Your task to perform on an android device: Open eBay Image 0: 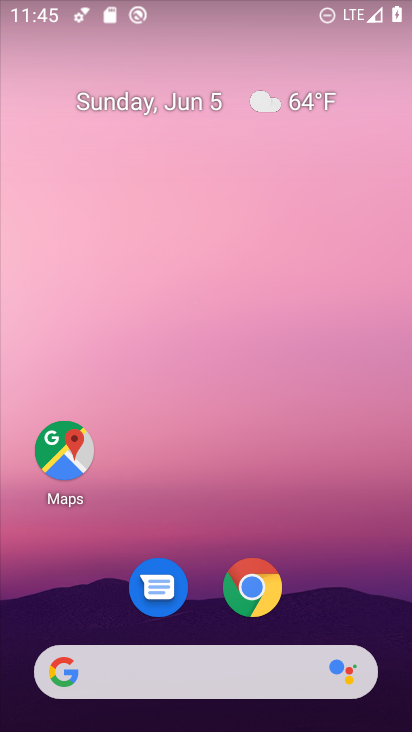
Step 0: click (251, 592)
Your task to perform on an android device: Open eBay Image 1: 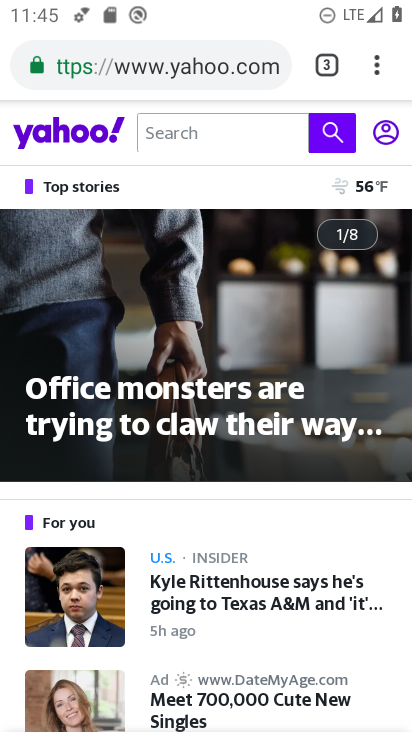
Step 1: click (333, 59)
Your task to perform on an android device: Open eBay Image 2: 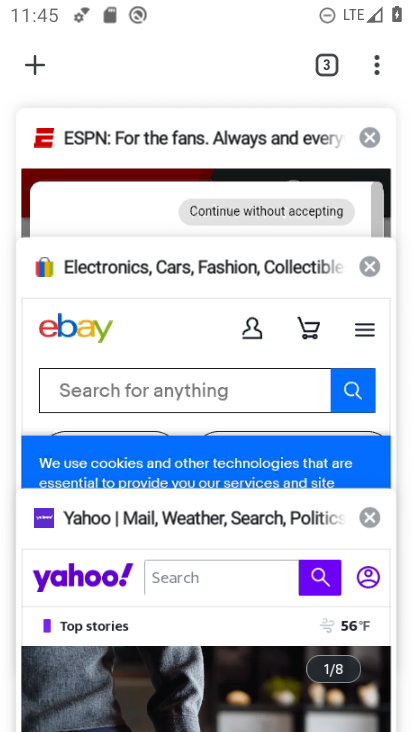
Step 2: click (41, 359)
Your task to perform on an android device: Open eBay Image 3: 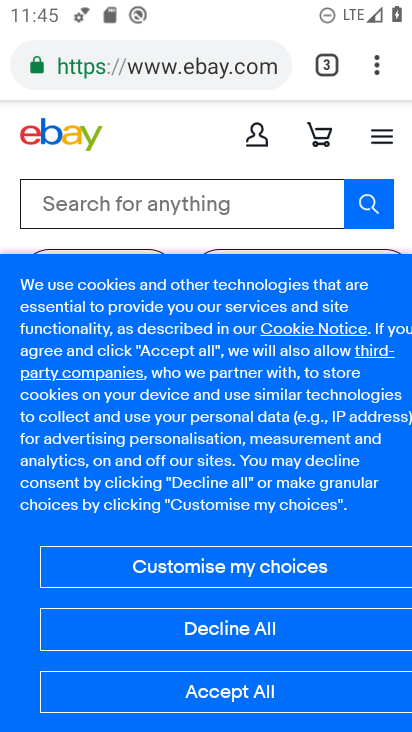
Step 3: task complete